Your task to perform on an android device: open wifi settings Image 0: 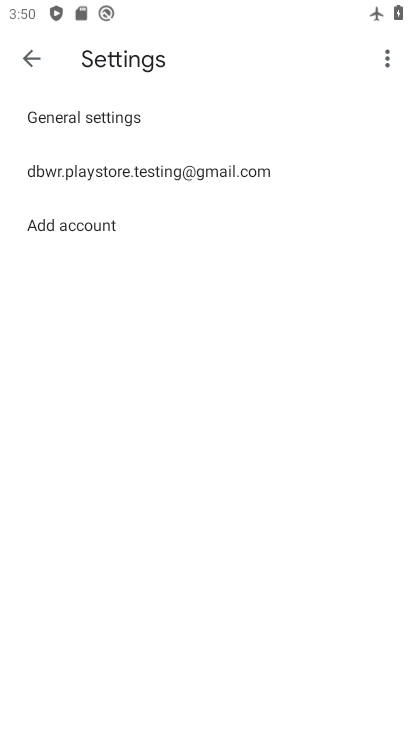
Step 0: press home button
Your task to perform on an android device: open wifi settings Image 1: 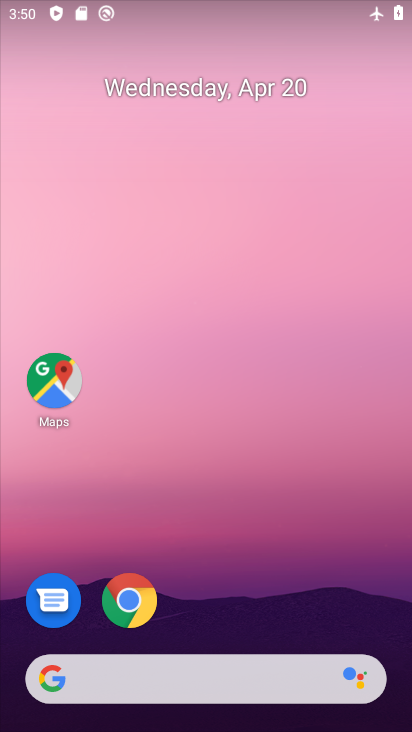
Step 1: drag from (203, 628) to (223, 17)
Your task to perform on an android device: open wifi settings Image 2: 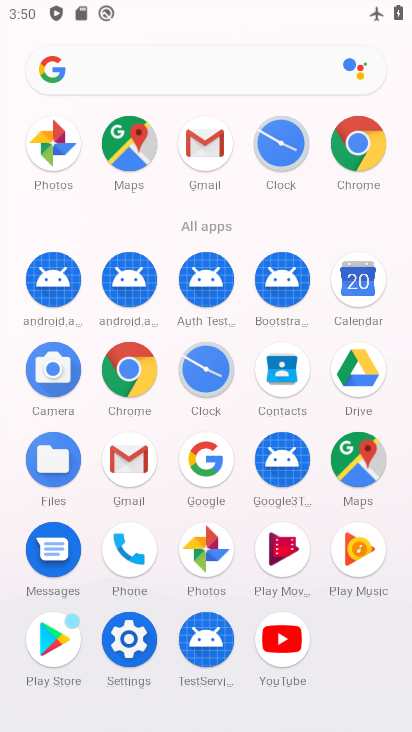
Step 2: click (126, 633)
Your task to perform on an android device: open wifi settings Image 3: 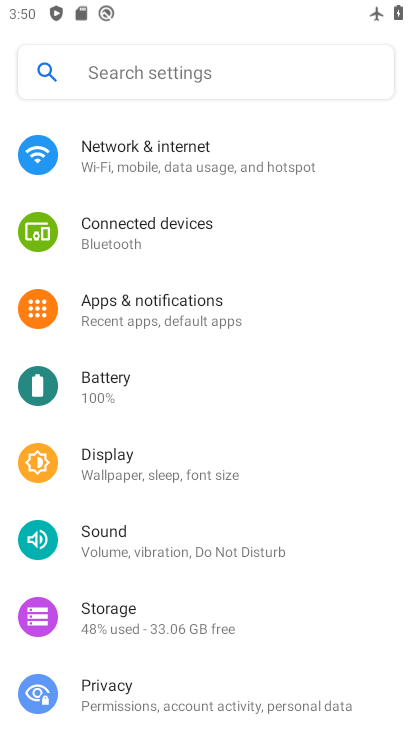
Step 3: click (219, 150)
Your task to perform on an android device: open wifi settings Image 4: 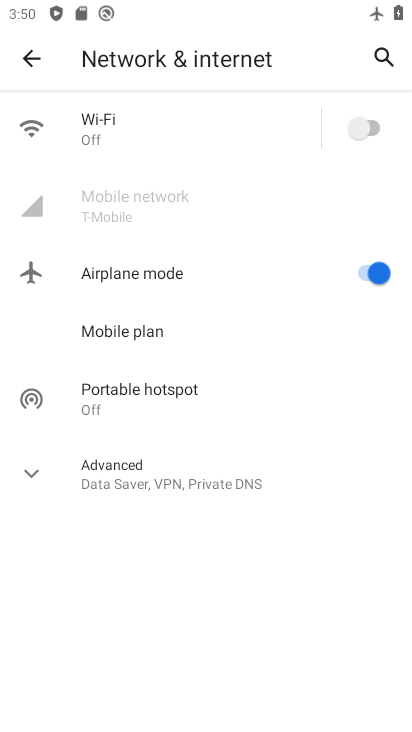
Step 4: click (140, 129)
Your task to perform on an android device: open wifi settings Image 5: 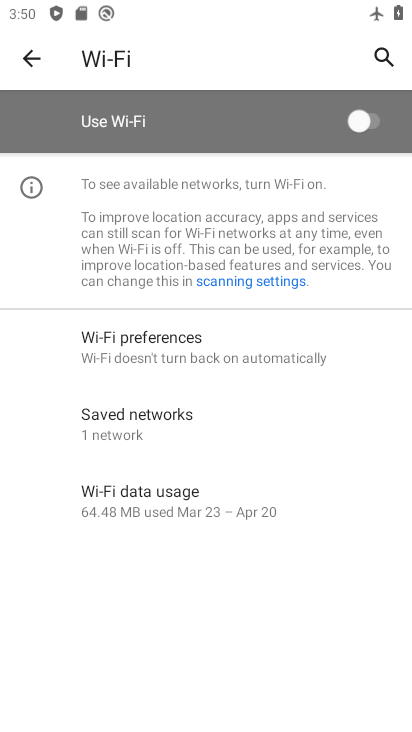
Step 5: task complete